Your task to perform on an android device: Open battery settings Image 0: 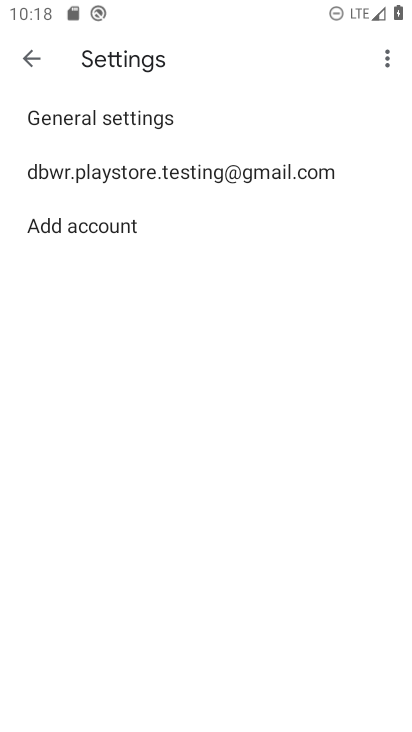
Step 0: press home button
Your task to perform on an android device: Open battery settings Image 1: 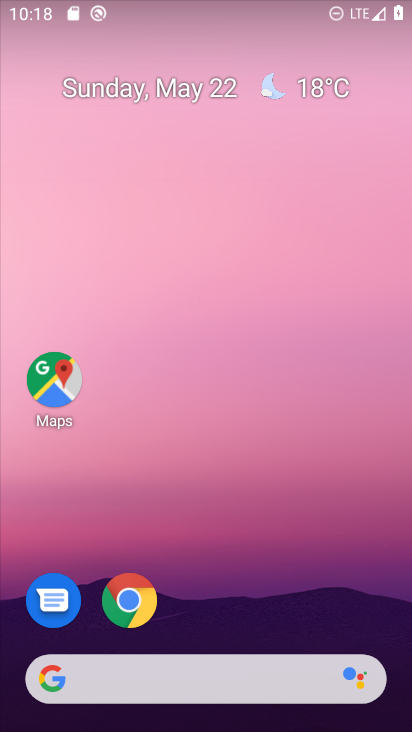
Step 1: drag from (366, 619) to (294, 20)
Your task to perform on an android device: Open battery settings Image 2: 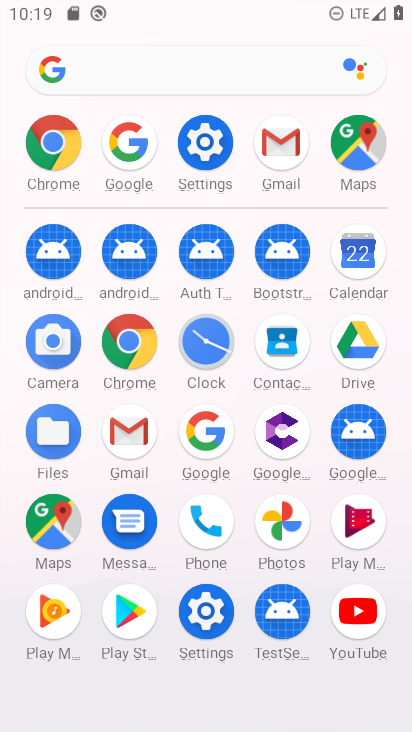
Step 2: click (193, 618)
Your task to perform on an android device: Open battery settings Image 3: 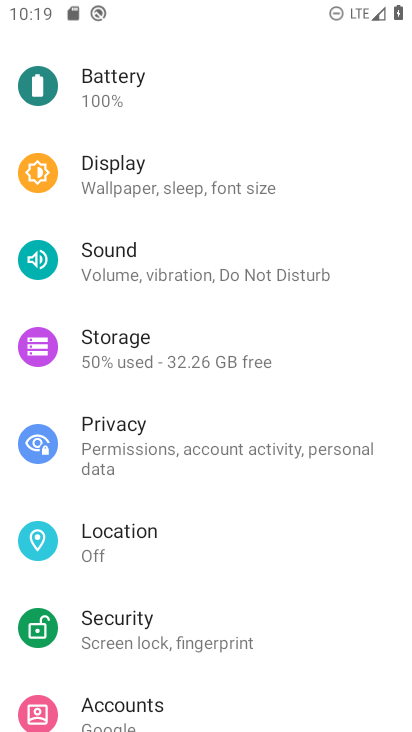
Step 3: click (187, 95)
Your task to perform on an android device: Open battery settings Image 4: 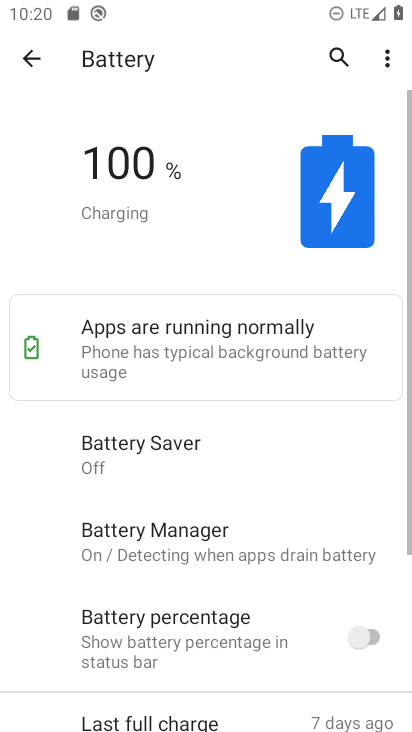
Step 4: task complete